Your task to perform on an android device: turn on bluetooth scan Image 0: 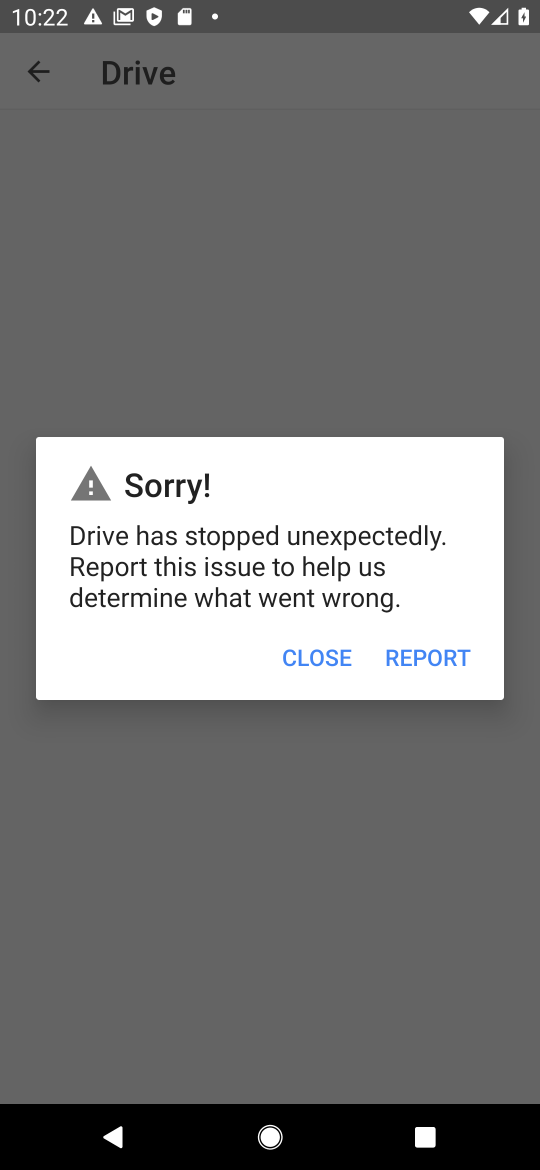
Step 0: press home button
Your task to perform on an android device: turn on bluetooth scan Image 1: 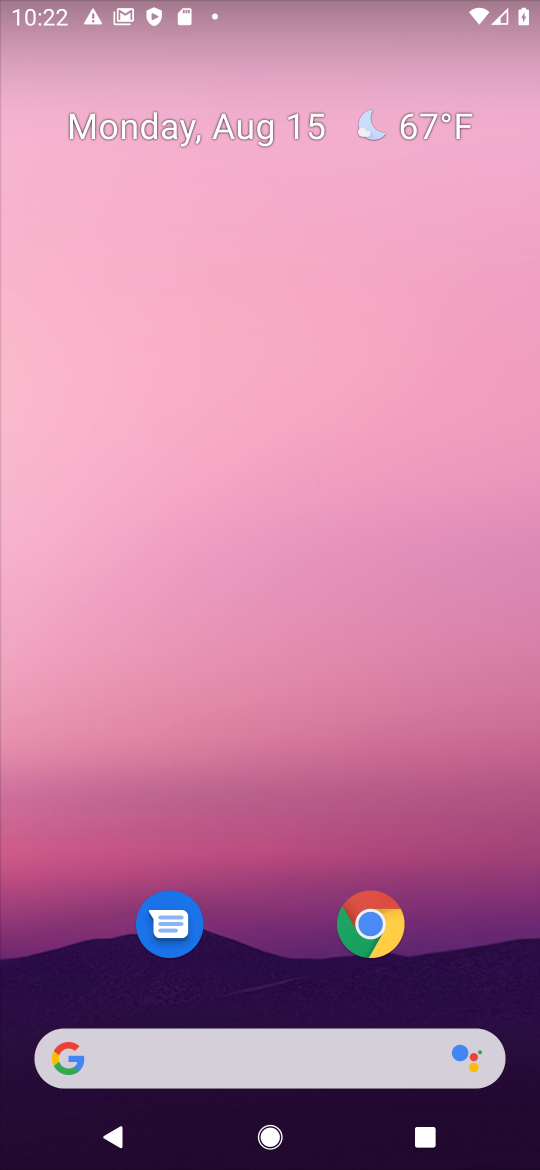
Step 1: drag from (514, 945) to (466, 137)
Your task to perform on an android device: turn on bluetooth scan Image 2: 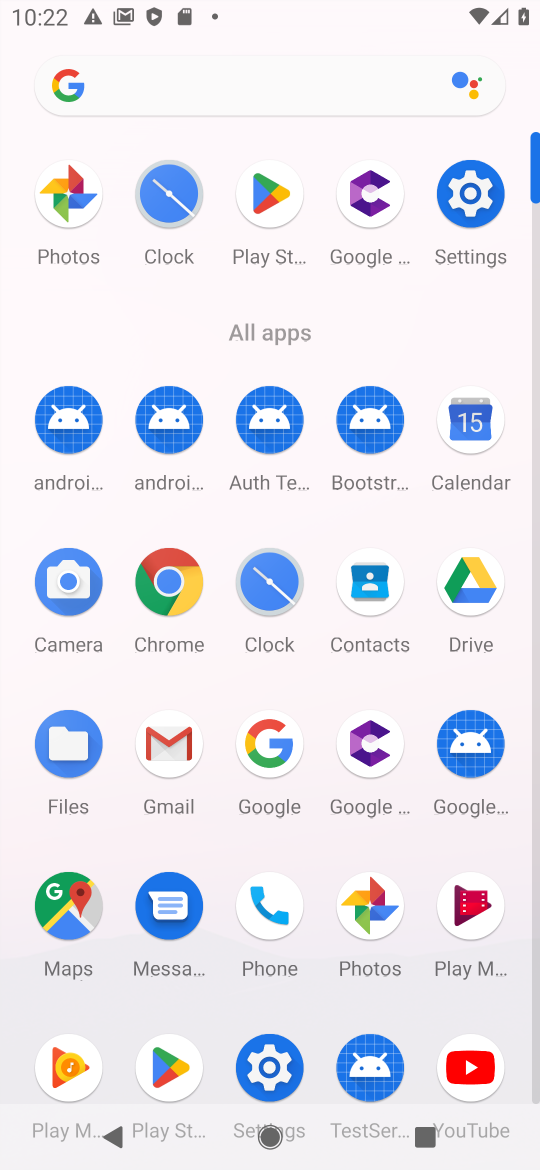
Step 2: click (270, 1069)
Your task to perform on an android device: turn on bluetooth scan Image 3: 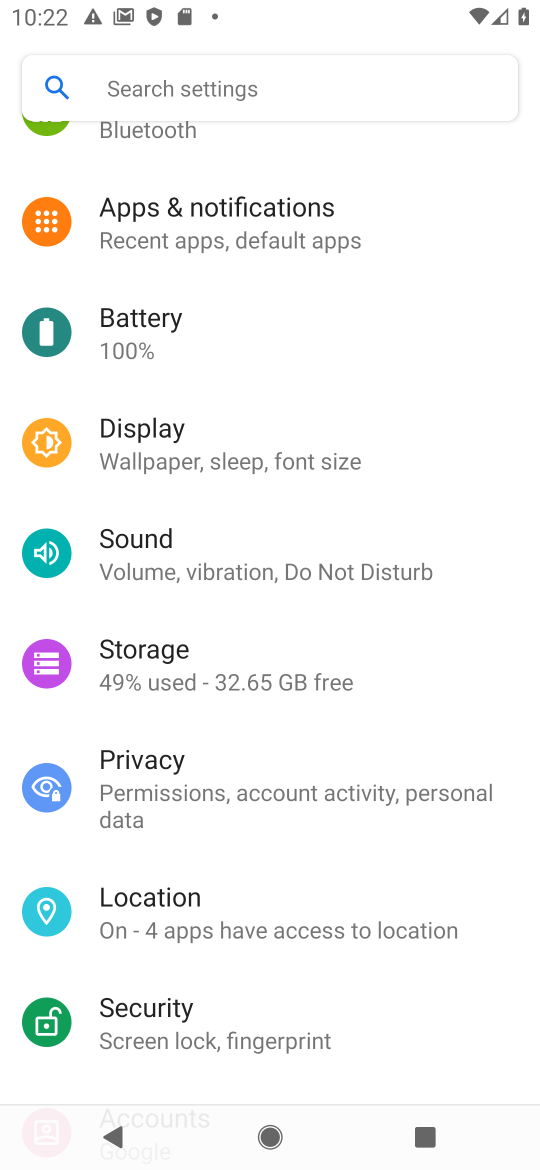
Step 3: click (143, 932)
Your task to perform on an android device: turn on bluetooth scan Image 4: 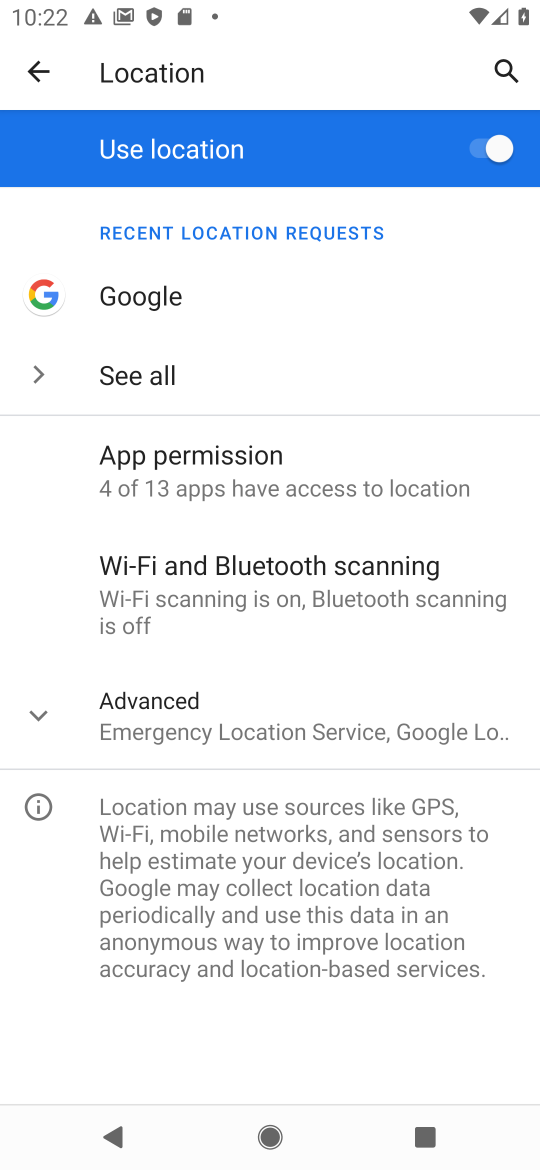
Step 4: click (253, 575)
Your task to perform on an android device: turn on bluetooth scan Image 5: 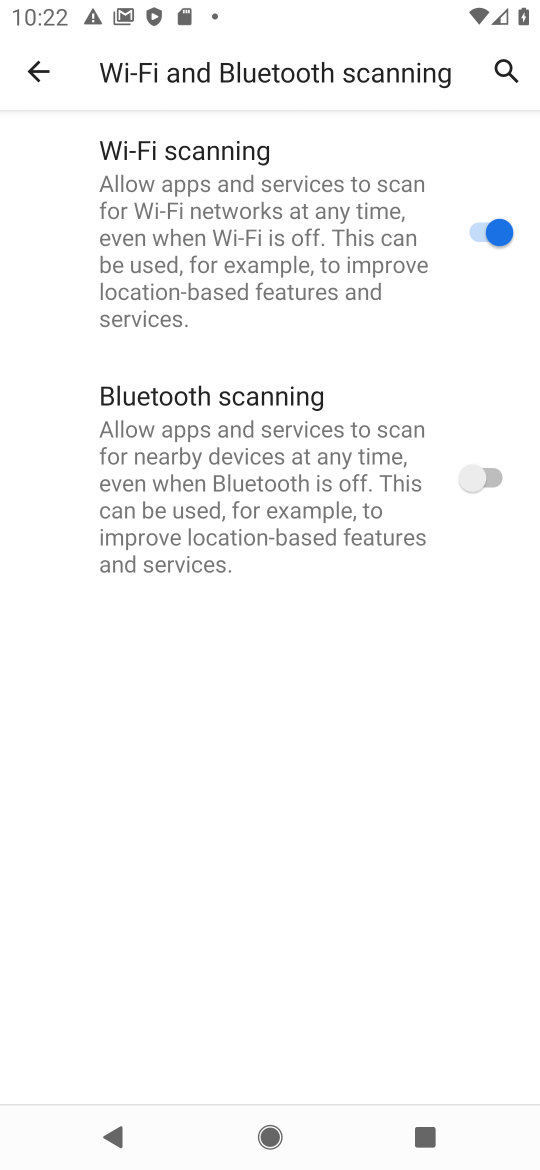
Step 5: click (491, 479)
Your task to perform on an android device: turn on bluetooth scan Image 6: 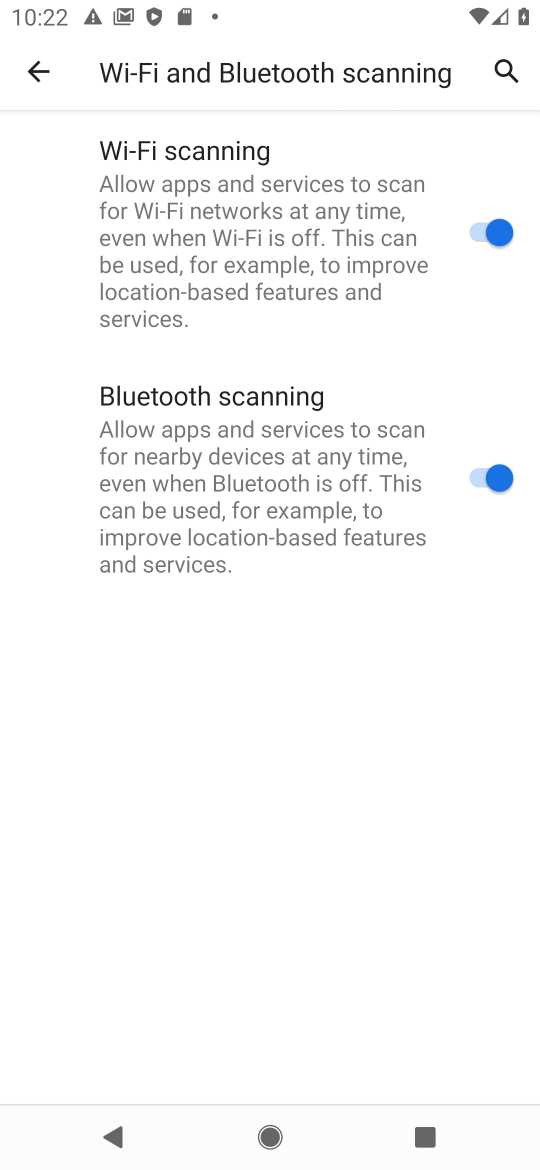
Step 6: task complete